Your task to perform on an android device: Go to sound settings Image 0: 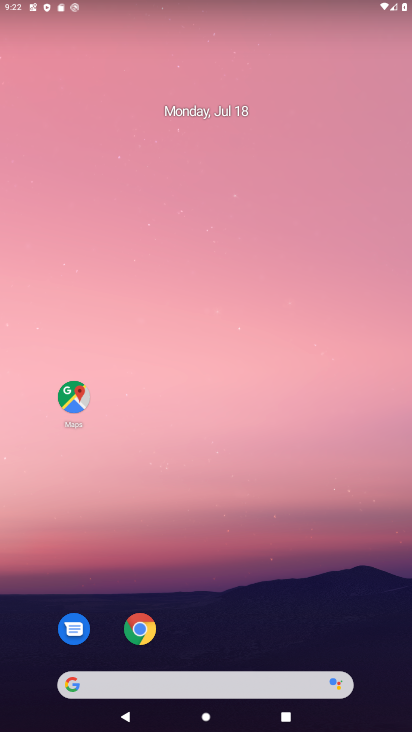
Step 0: drag from (388, 657) to (329, 59)
Your task to perform on an android device: Go to sound settings Image 1: 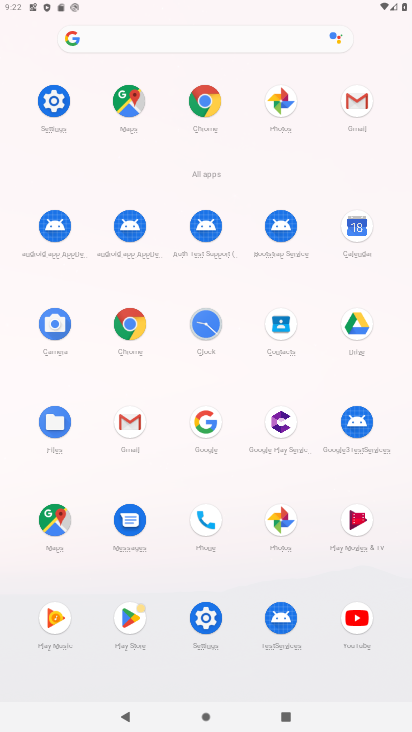
Step 1: click (60, 92)
Your task to perform on an android device: Go to sound settings Image 2: 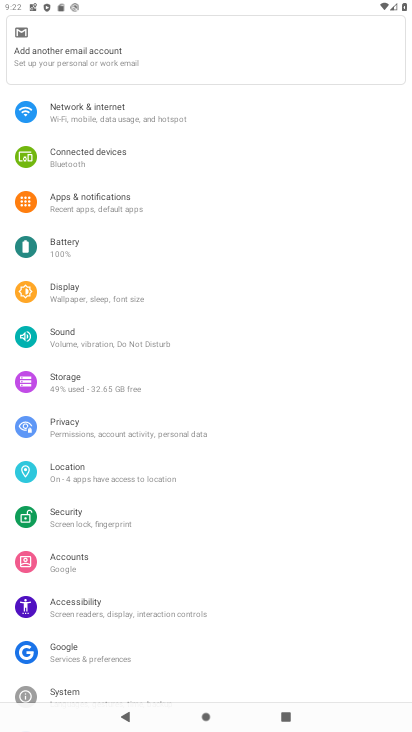
Step 2: click (83, 334)
Your task to perform on an android device: Go to sound settings Image 3: 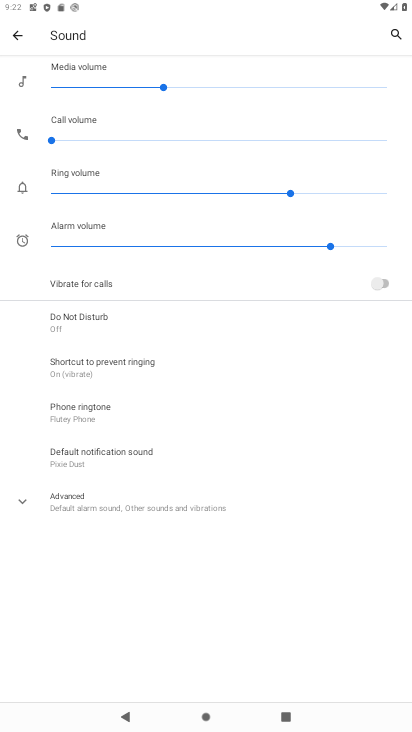
Step 3: task complete